Your task to perform on an android device: What's the weather going to be this weekend? Image 0: 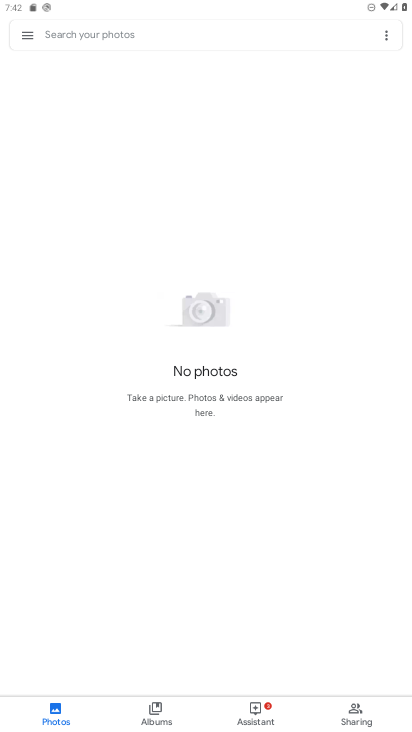
Step 0: press home button
Your task to perform on an android device: What's the weather going to be this weekend? Image 1: 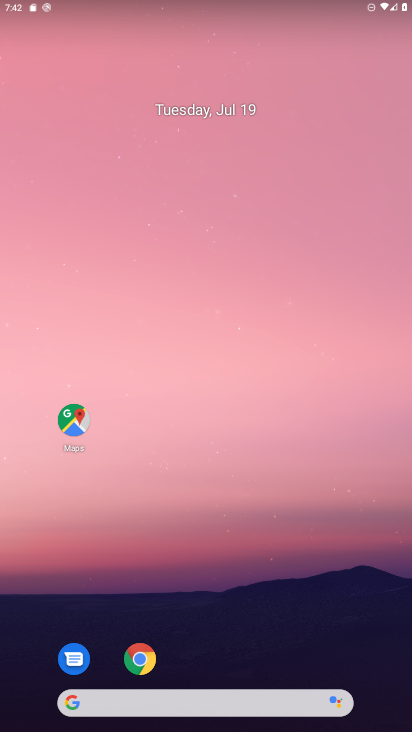
Step 1: drag from (238, 539) to (226, 230)
Your task to perform on an android device: What's the weather going to be this weekend? Image 2: 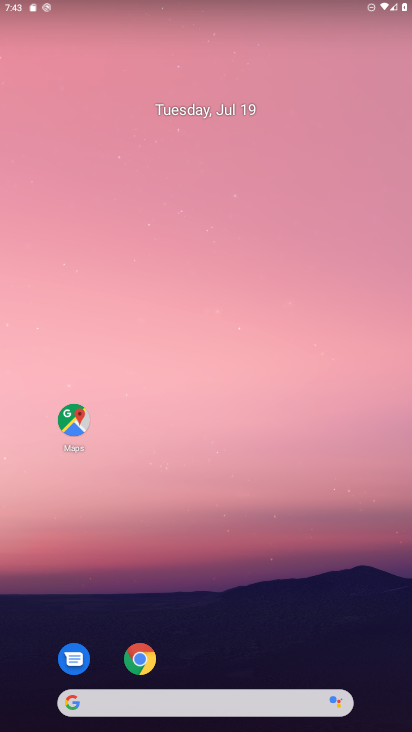
Step 2: drag from (246, 621) to (251, 284)
Your task to perform on an android device: What's the weather going to be this weekend? Image 3: 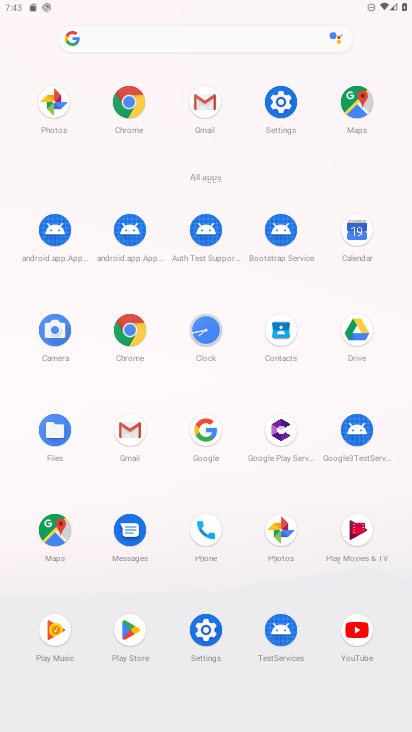
Step 3: click (136, 101)
Your task to perform on an android device: What's the weather going to be this weekend? Image 4: 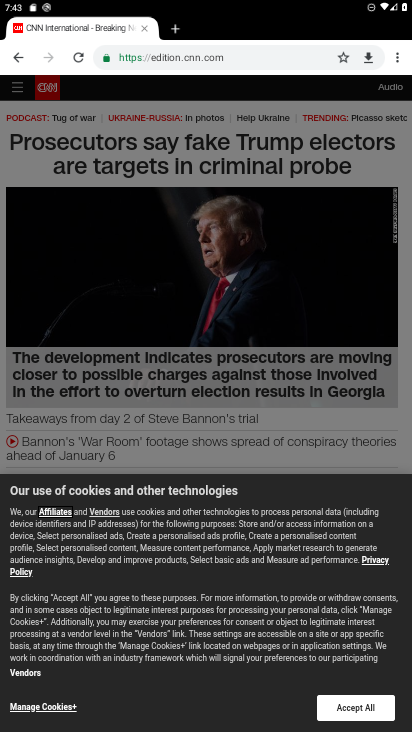
Step 4: click (171, 27)
Your task to perform on an android device: What's the weather going to be this weekend? Image 5: 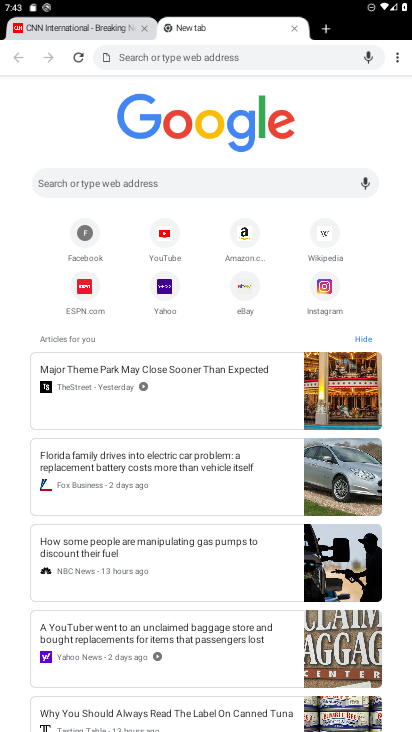
Step 5: click (211, 52)
Your task to perform on an android device: What's the weather going to be this weekend? Image 6: 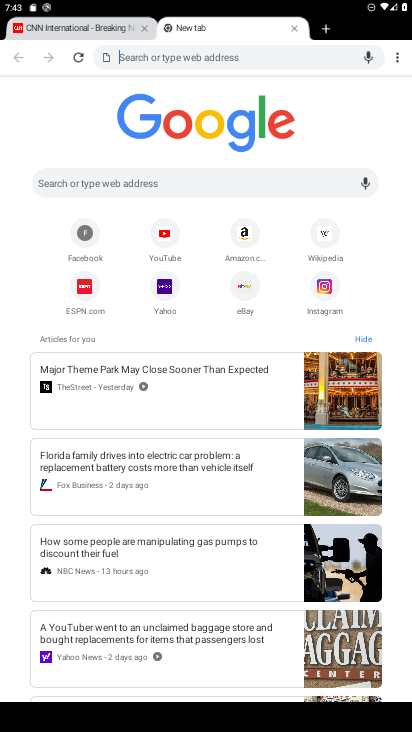
Step 6: type "What's the weather going to be this weekend "
Your task to perform on an android device: What's the weather going to be this weekend? Image 7: 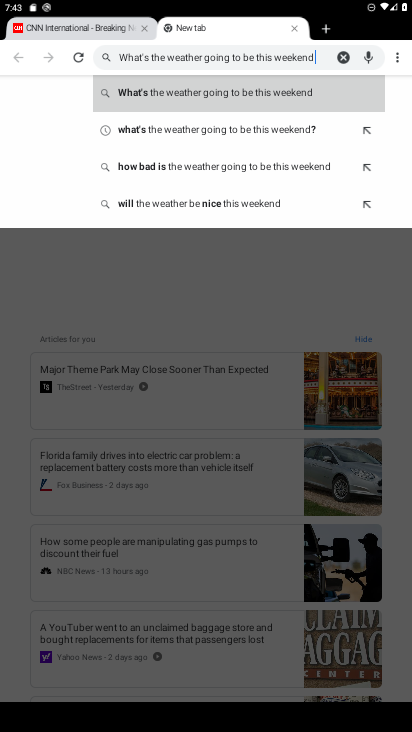
Step 7: click (272, 92)
Your task to perform on an android device: What's the weather going to be this weekend? Image 8: 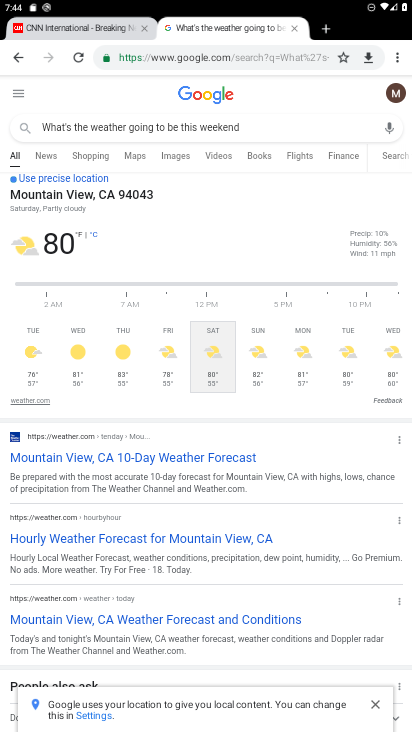
Step 8: task complete